Your task to perform on an android device: Empty the shopping cart on ebay. Add dell xps to the cart on ebay, then select checkout. Image 0: 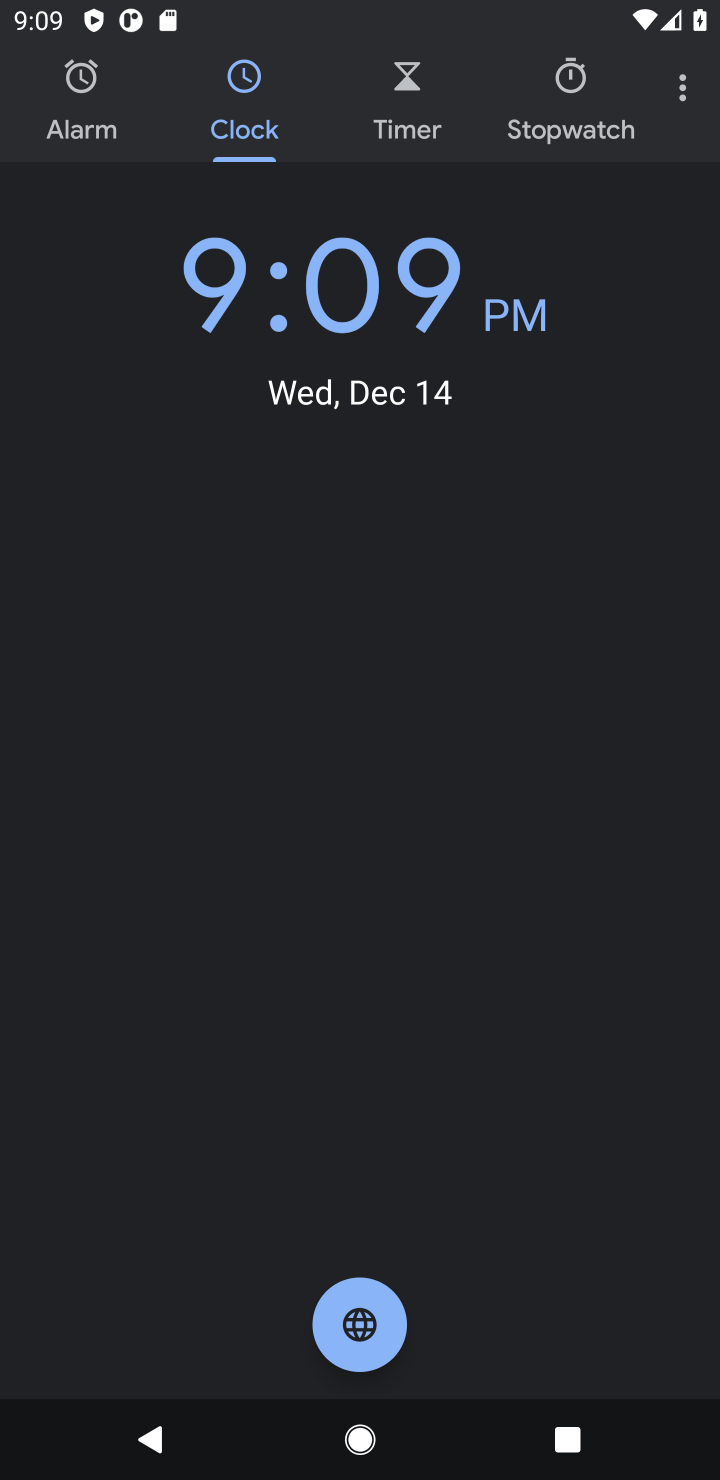
Step 0: press home button
Your task to perform on an android device: Empty the shopping cart on ebay. Add dell xps to the cart on ebay, then select checkout. Image 1: 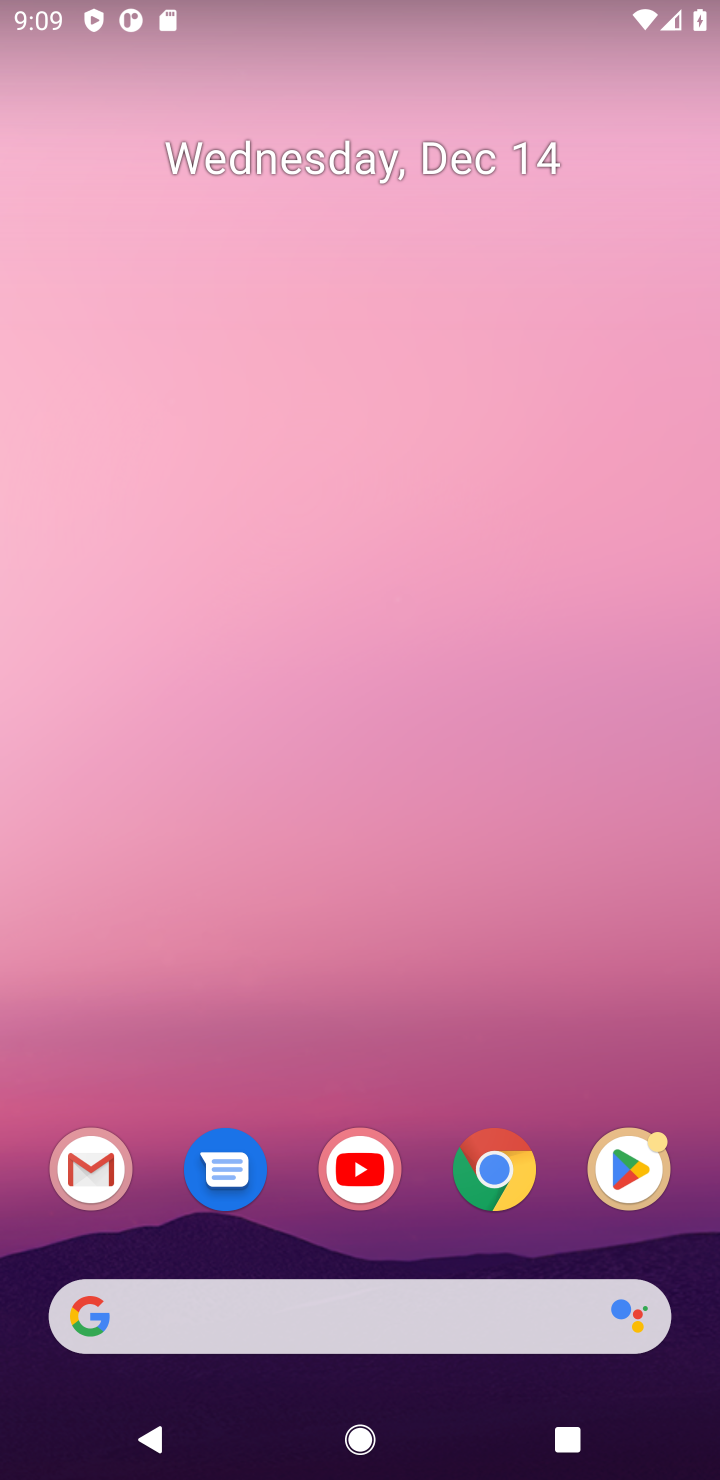
Step 1: click (504, 1178)
Your task to perform on an android device: Empty the shopping cart on ebay. Add dell xps to the cart on ebay, then select checkout. Image 2: 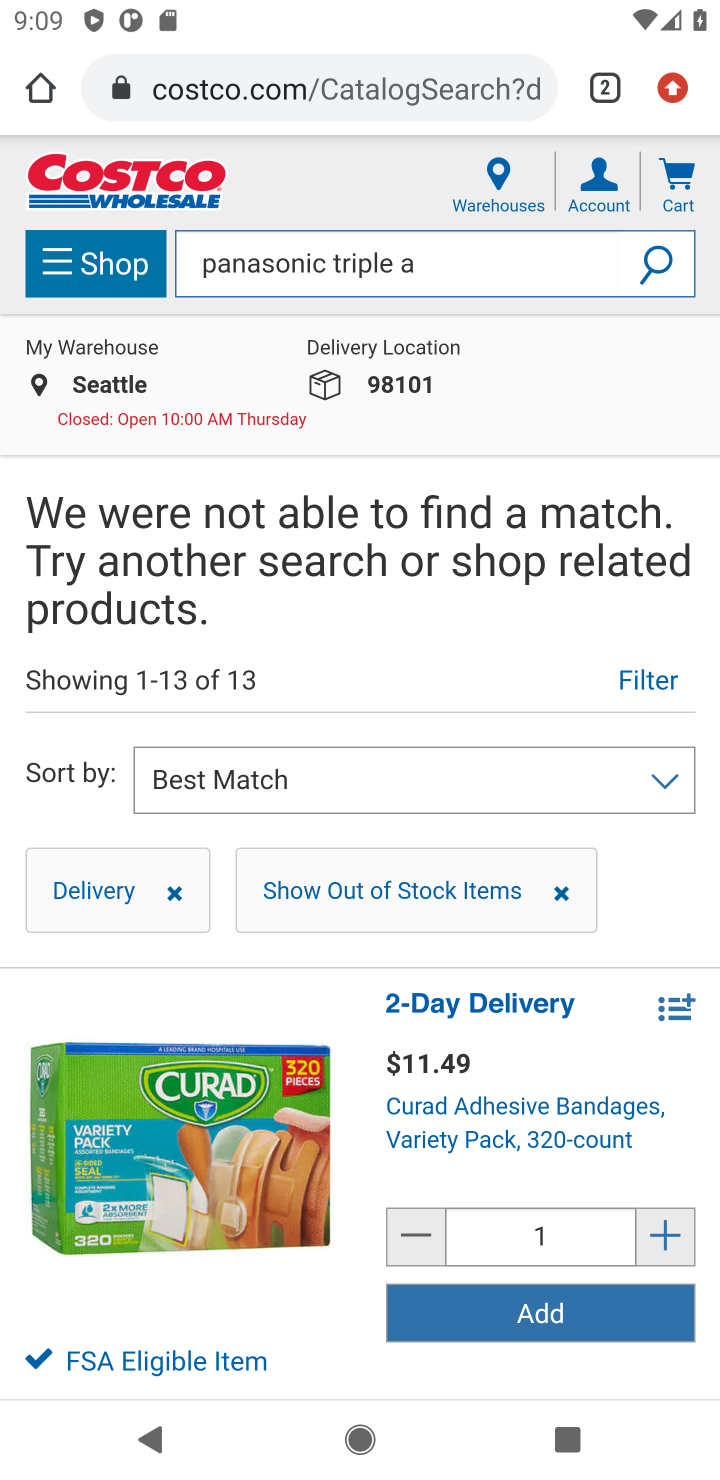
Step 2: click (604, 87)
Your task to perform on an android device: Empty the shopping cart on ebay. Add dell xps to the cart on ebay, then select checkout. Image 3: 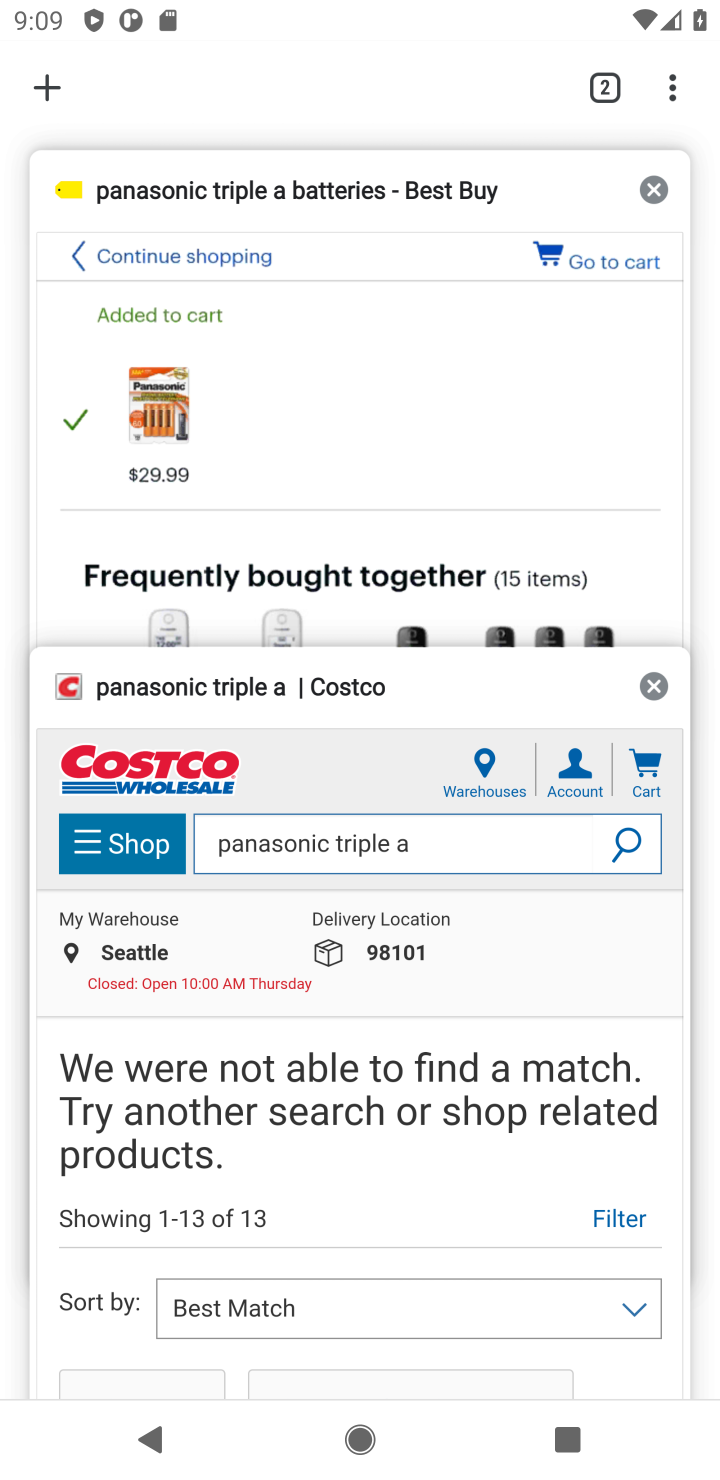
Step 3: click (58, 86)
Your task to perform on an android device: Empty the shopping cart on ebay. Add dell xps to the cart on ebay, then select checkout. Image 4: 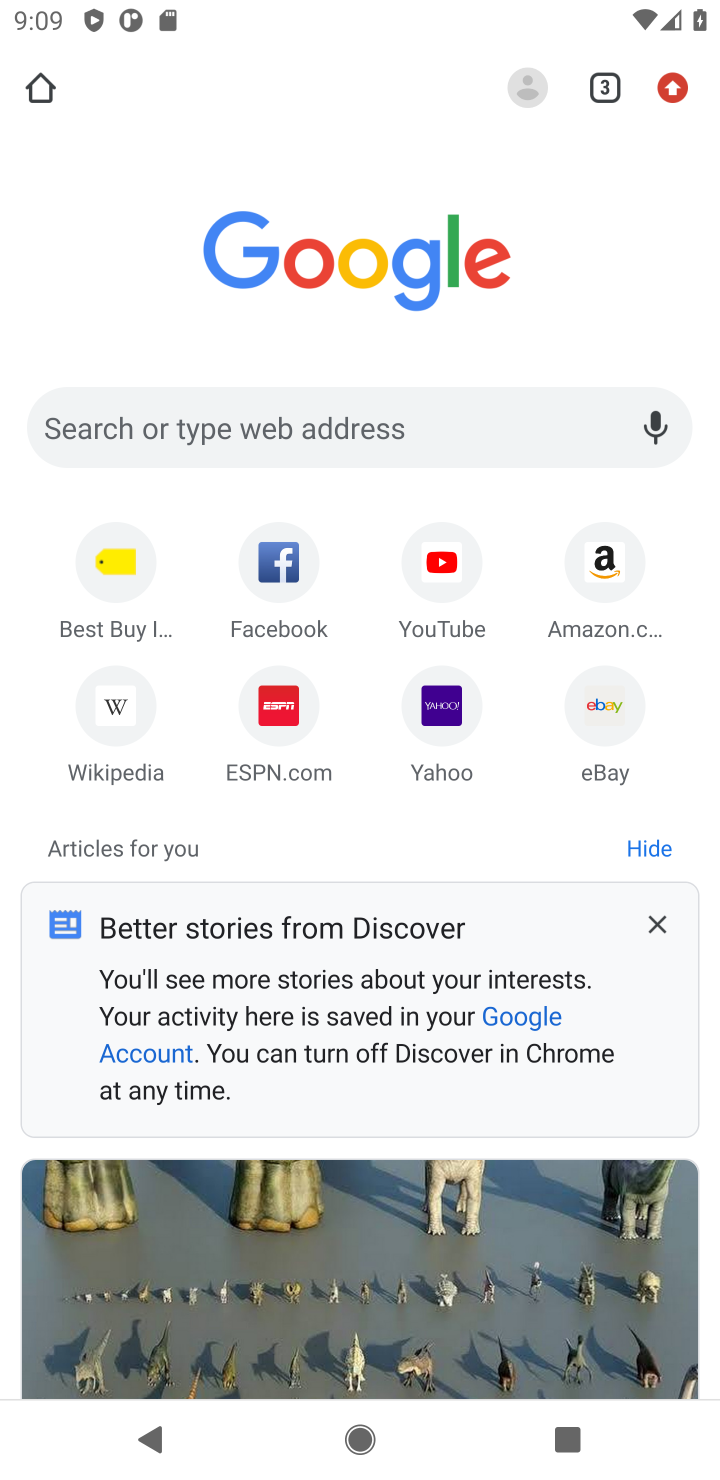
Step 4: click (609, 736)
Your task to perform on an android device: Empty the shopping cart on ebay. Add dell xps to the cart on ebay, then select checkout. Image 5: 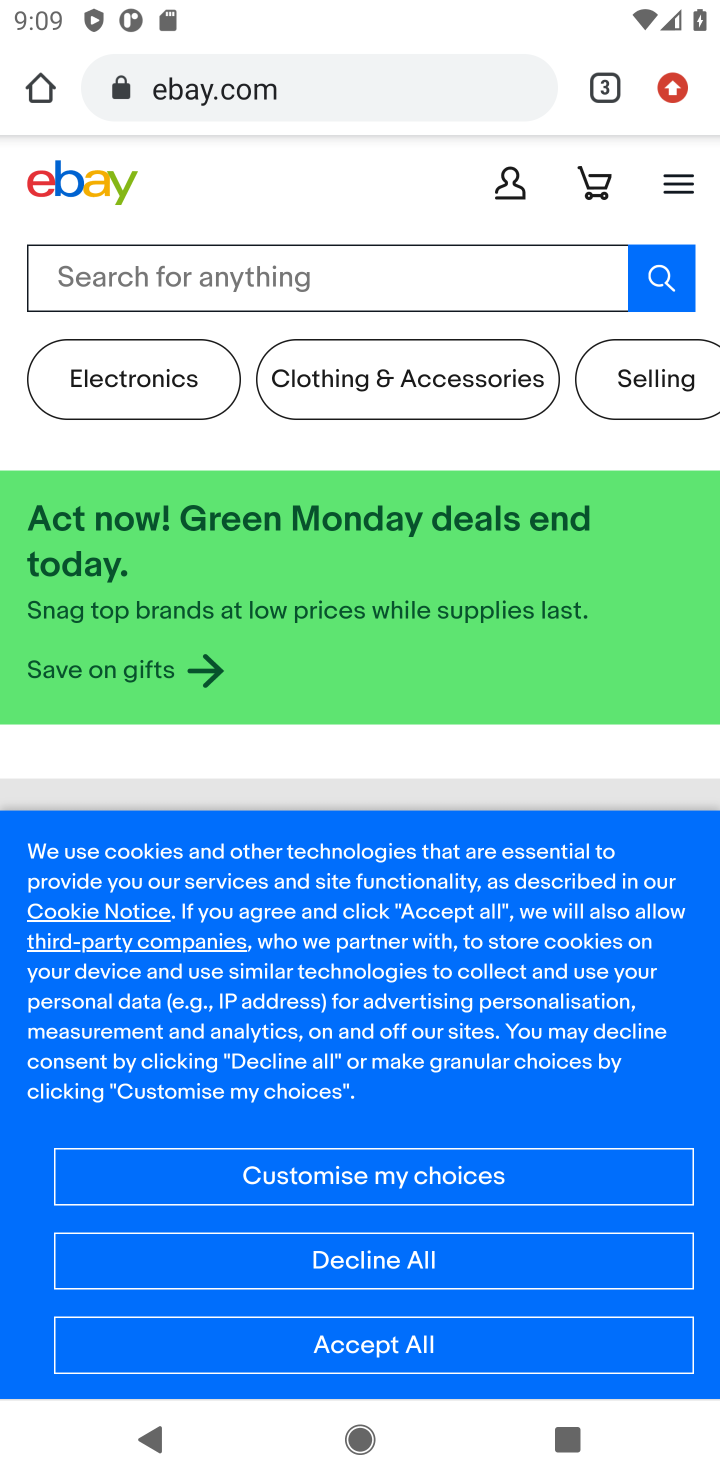
Step 5: click (357, 1244)
Your task to perform on an android device: Empty the shopping cart on ebay. Add dell xps to the cart on ebay, then select checkout. Image 6: 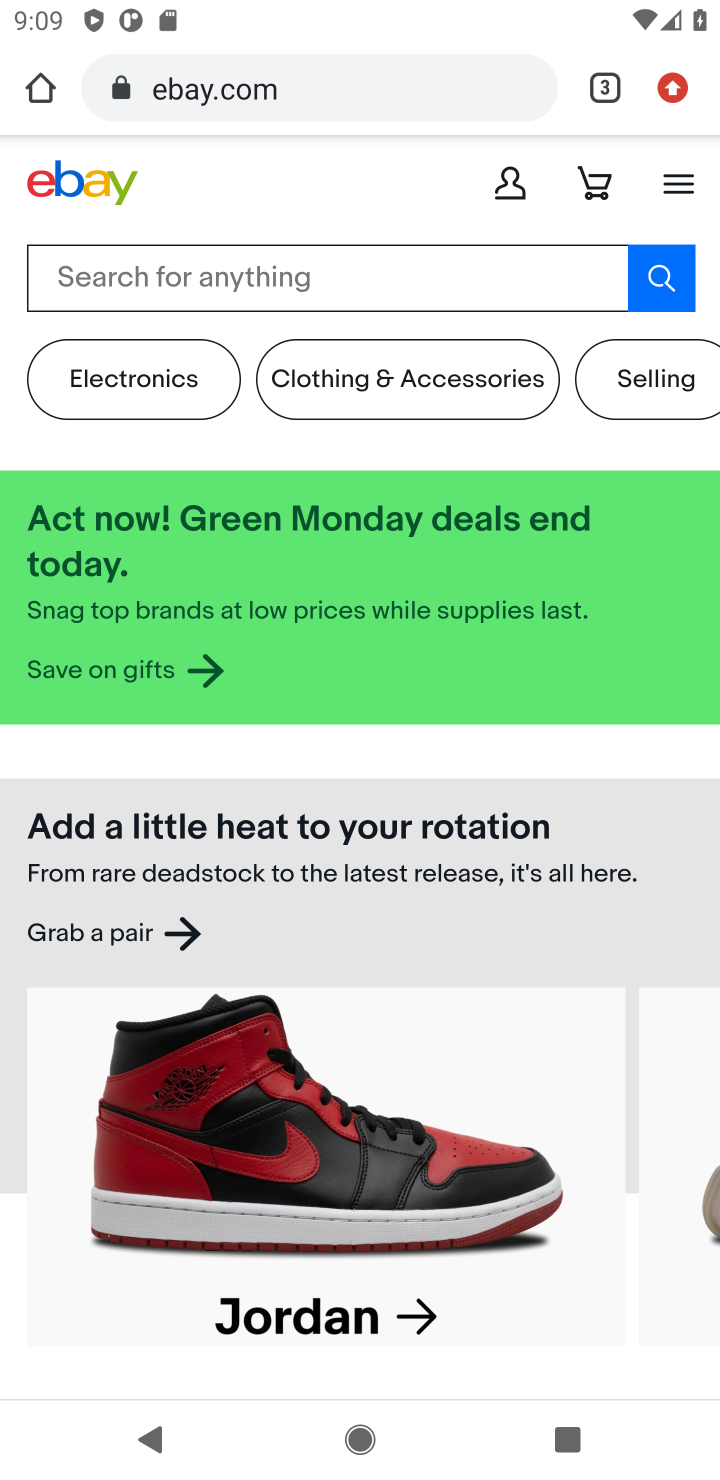
Step 6: click (202, 270)
Your task to perform on an android device: Empty the shopping cart on ebay. Add dell xps to the cart on ebay, then select checkout. Image 7: 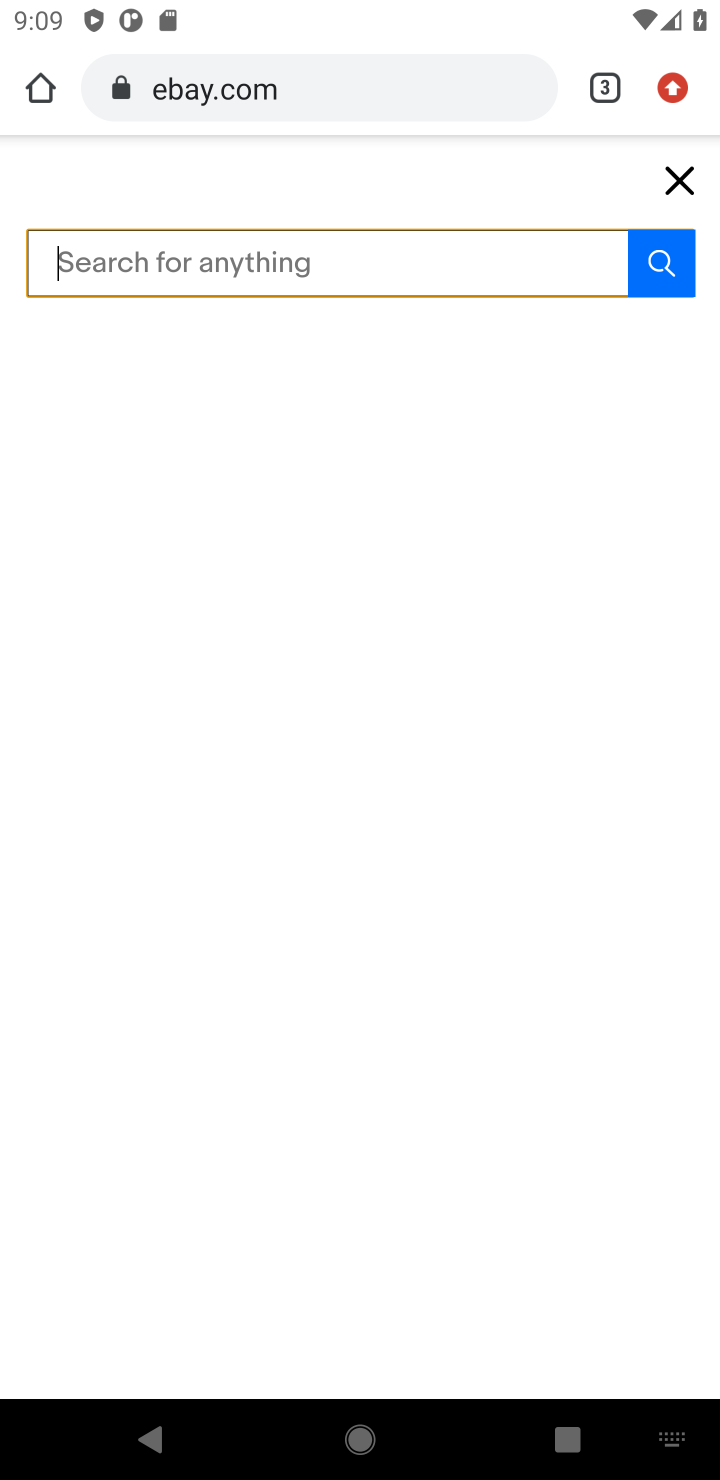
Step 7: type "dell xps"
Your task to perform on an android device: Empty the shopping cart on ebay. Add dell xps to the cart on ebay, then select checkout. Image 8: 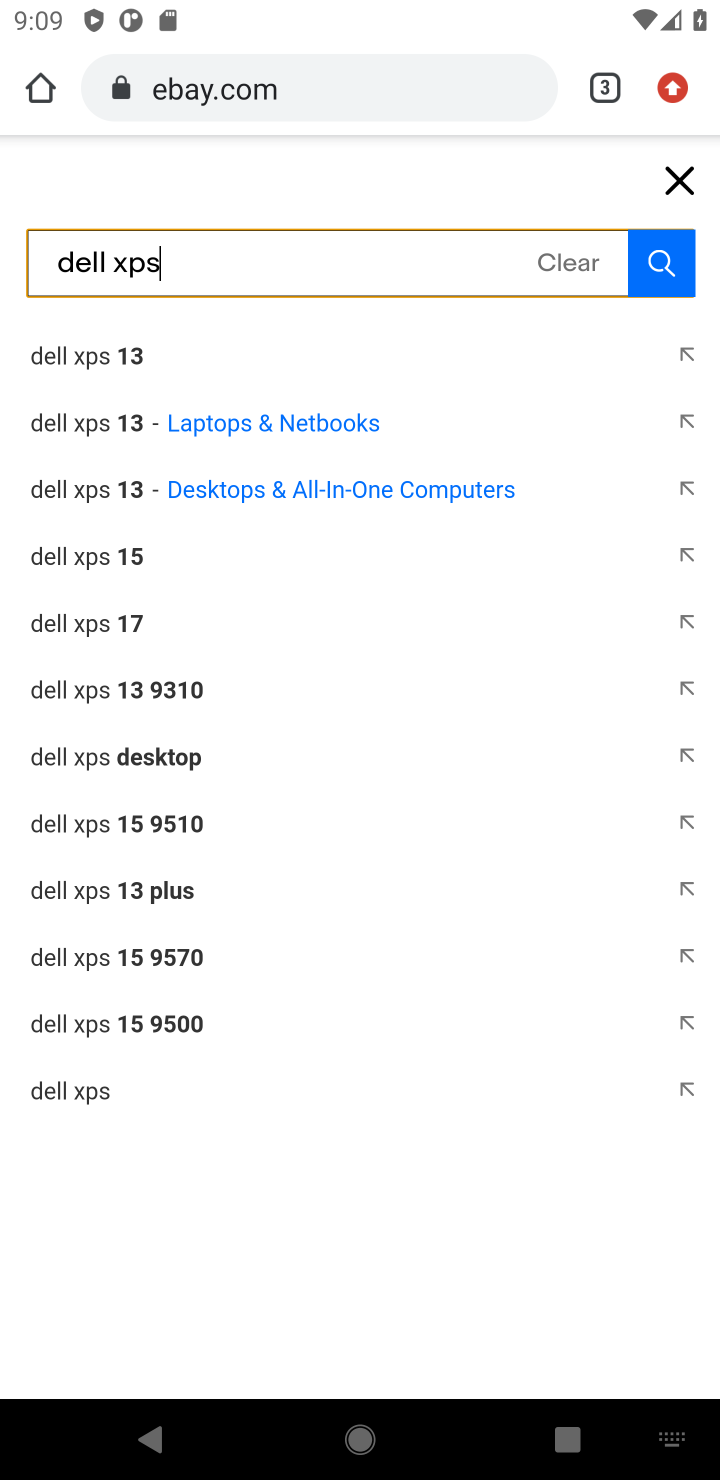
Step 8: click (103, 416)
Your task to perform on an android device: Empty the shopping cart on ebay. Add dell xps to the cart on ebay, then select checkout. Image 9: 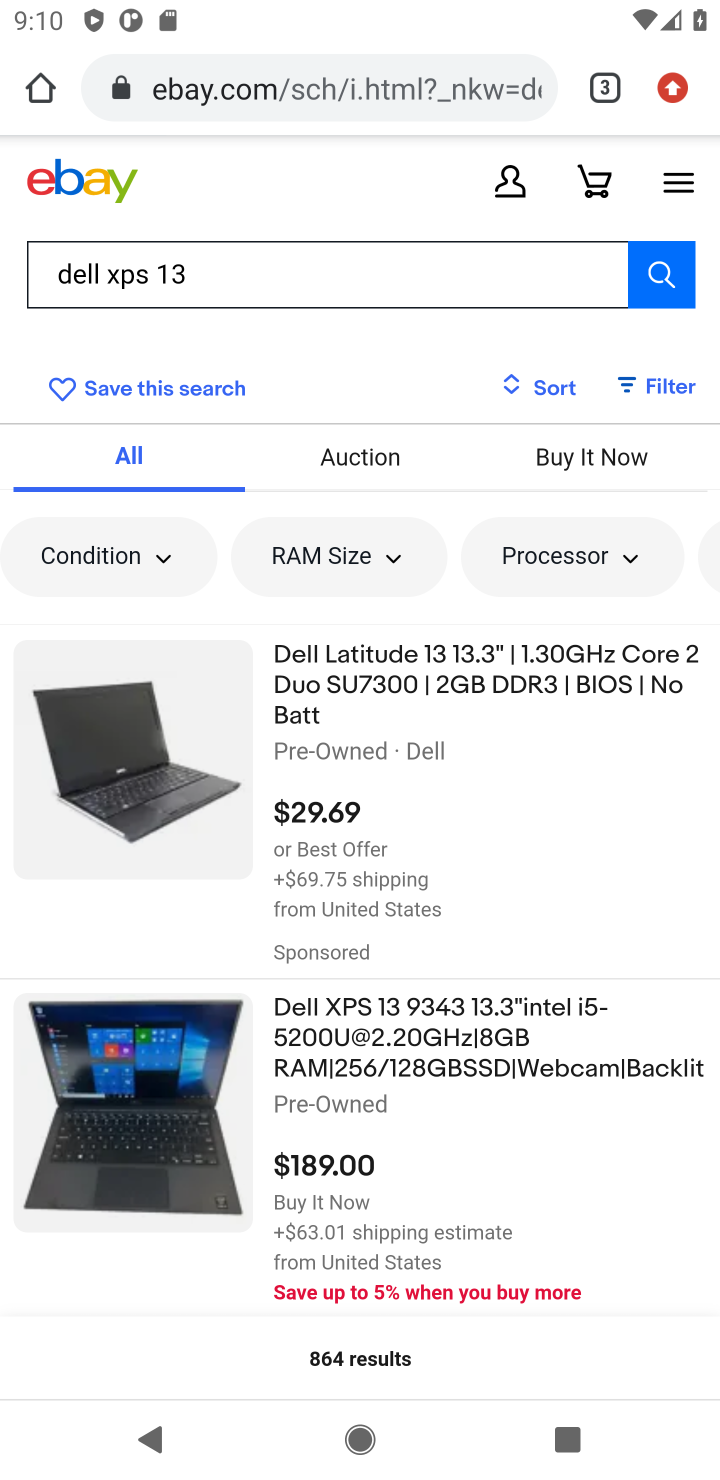
Step 9: click (446, 1044)
Your task to perform on an android device: Empty the shopping cart on ebay. Add dell xps to the cart on ebay, then select checkout. Image 10: 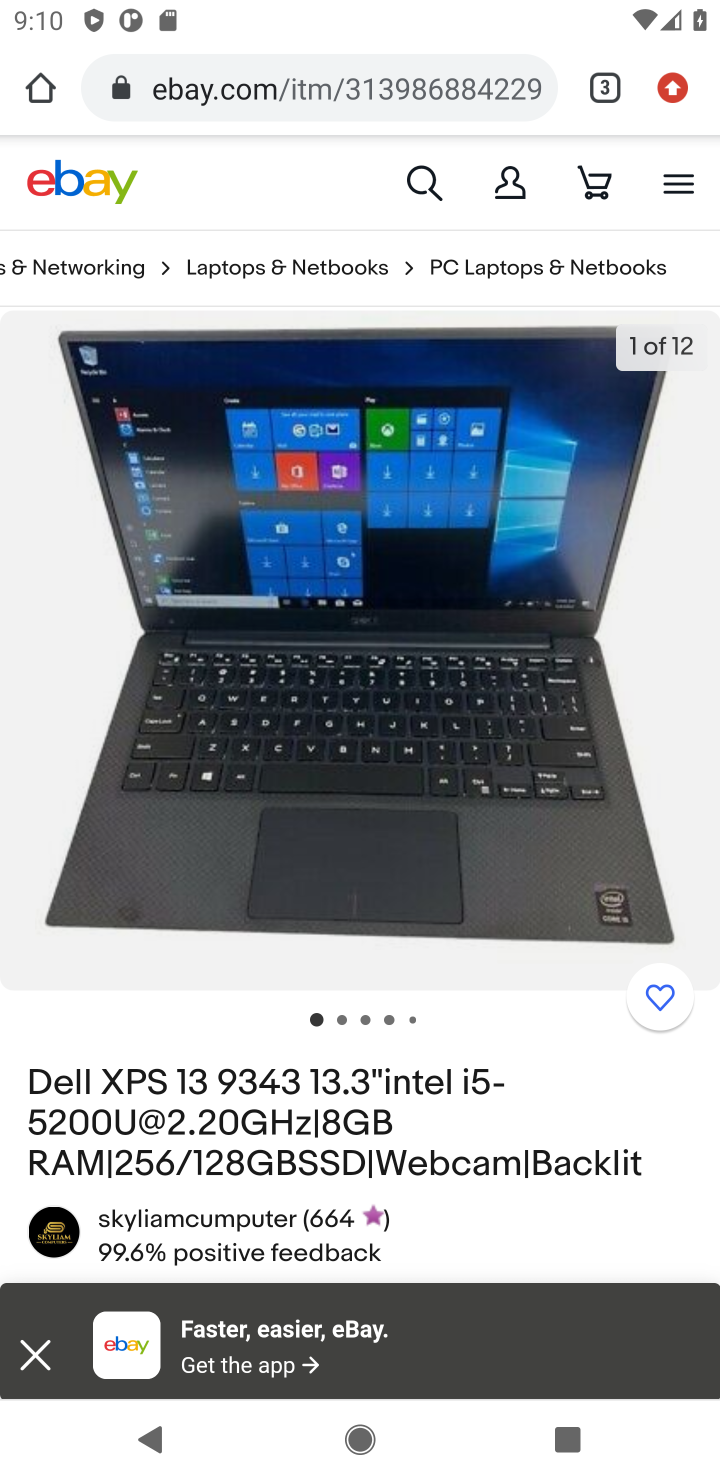
Step 10: drag from (277, 1247) to (521, 364)
Your task to perform on an android device: Empty the shopping cart on ebay. Add dell xps to the cart on ebay, then select checkout. Image 11: 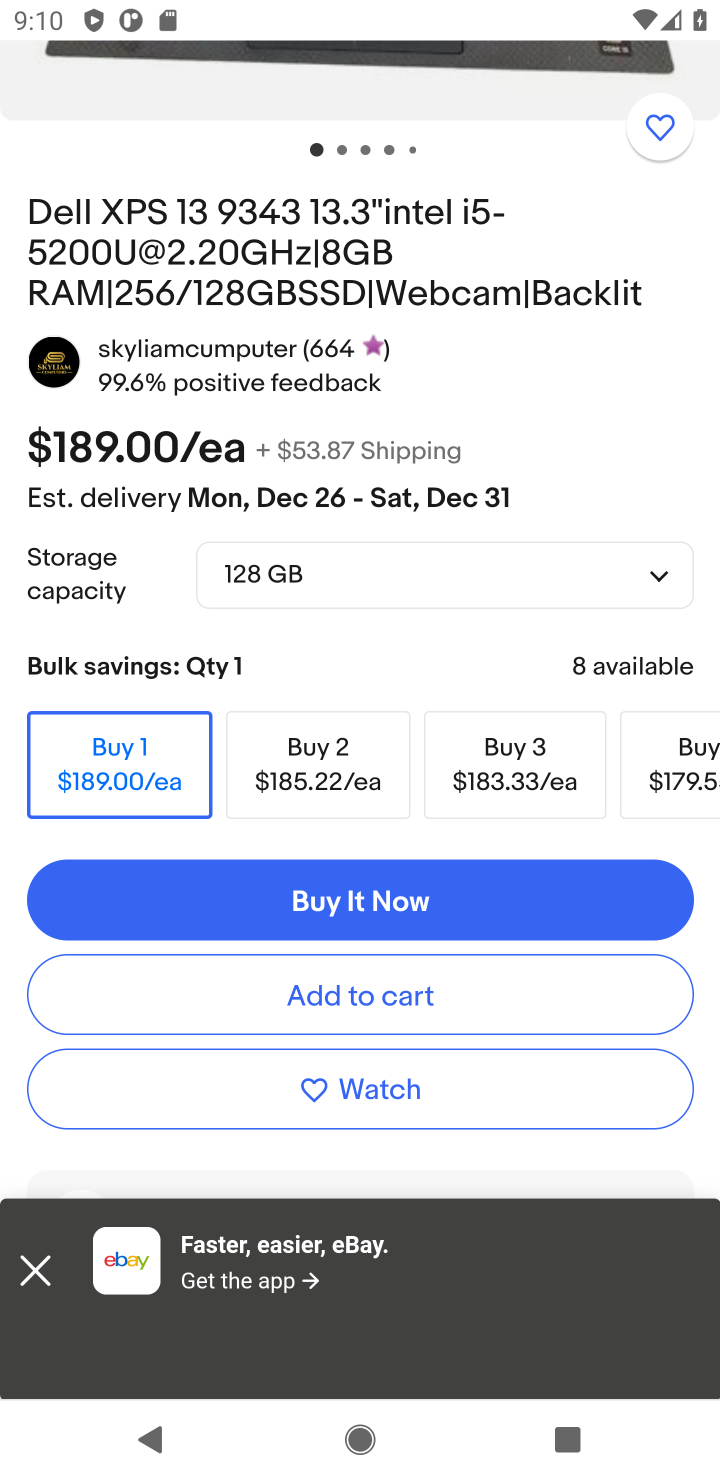
Step 11: click (397, 986)
Your task to perform on an android device: Empty the shopping cart on ebay. Add dell xps to the cart on ebay, then select checkout. Image 12: 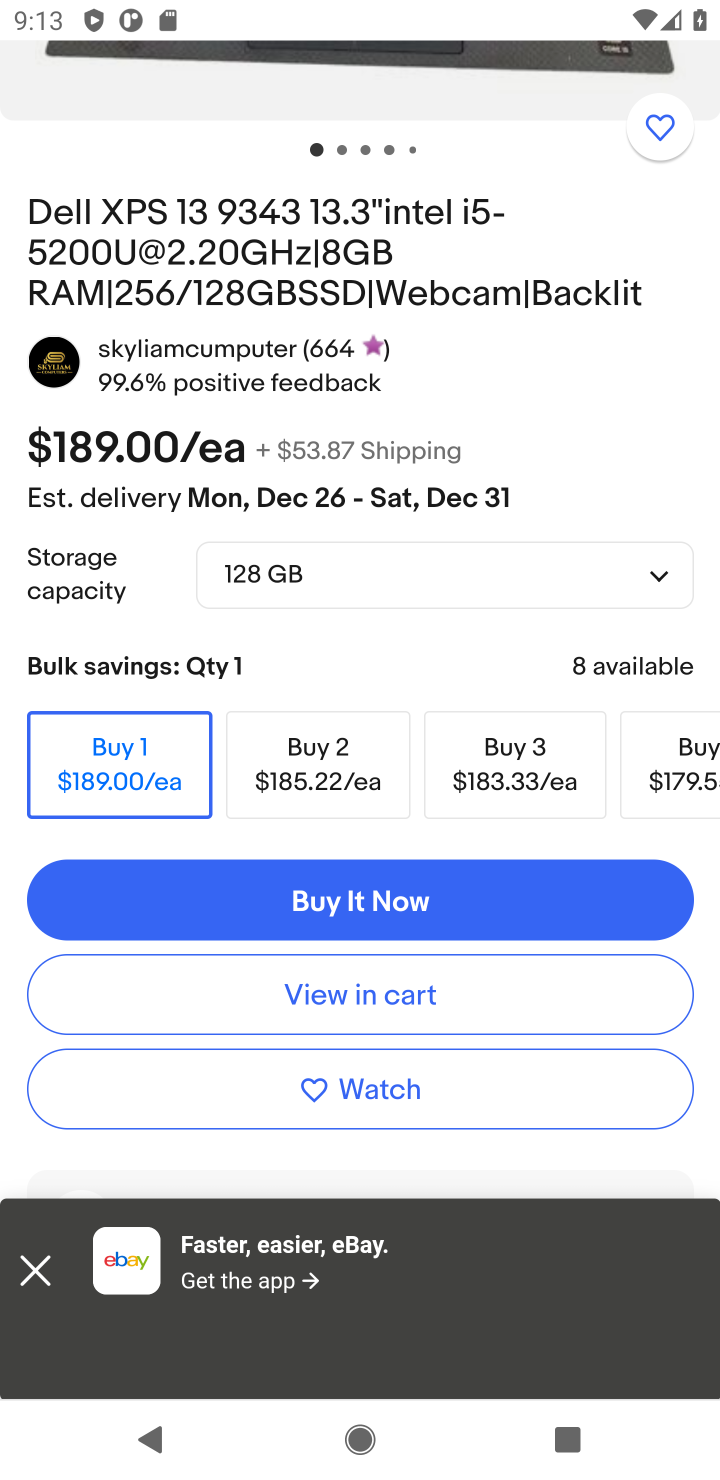
Step 12: task complete